Your task to perform on an android device: Open Google Maps and go to "Timeline" Image 0: 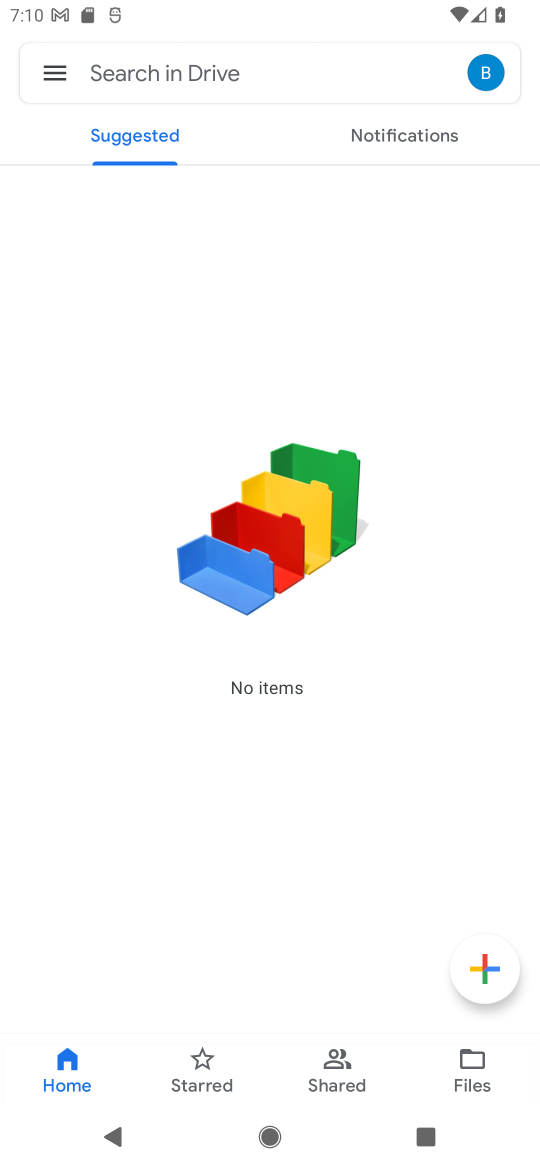
Step 0: press home button
Your task to perform on an android device: Open Google Maps and go to "Timeline" Image 1: 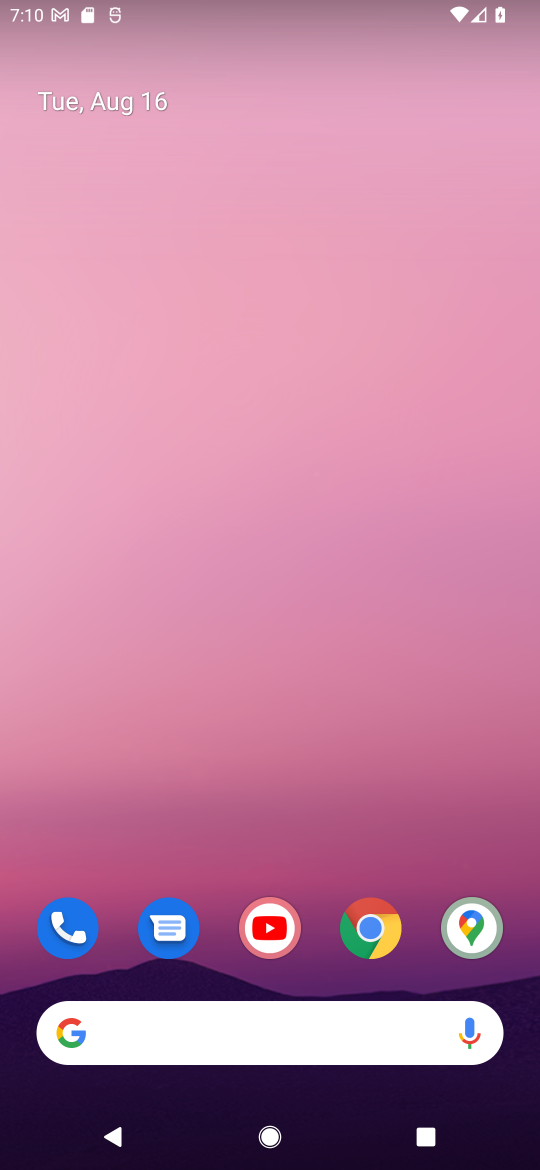
Step 1: drag from (305, 824) to (274, 328)
Your task to perform on an android device: Open Google Maps and go to "Timeline" Image 2: 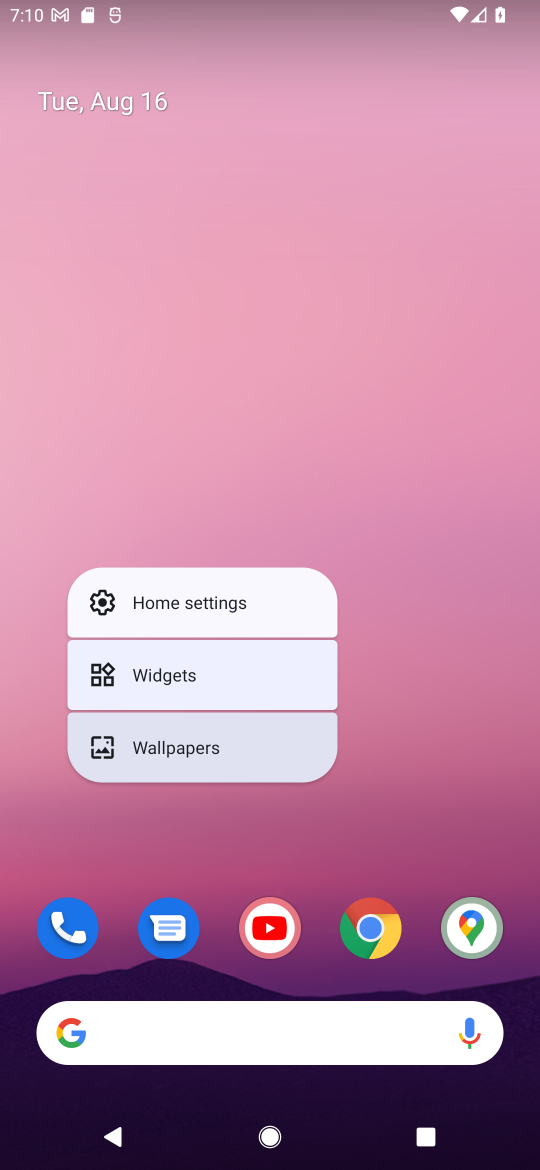
Step 2: drag from (353, 1035) to (294, 94)
Your task to perform on an android device: Open Google Maps and go to "Timeline" Image 3: 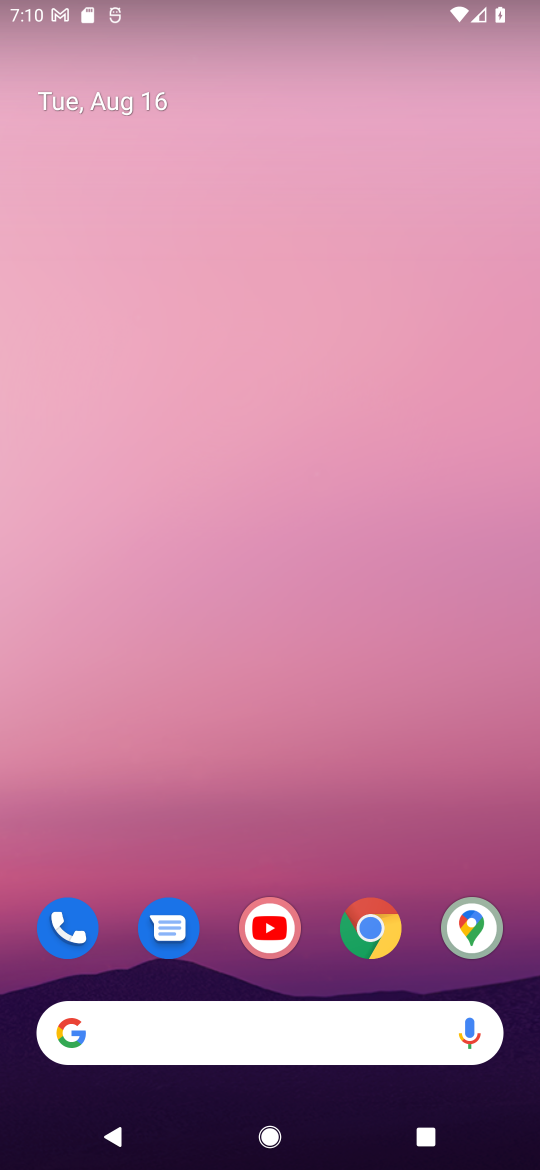
Step 3: drag from (232, 990) to (209, 258)
Your task to perform on an android device: Open Google Maps and go to "Timeline" Image 4: 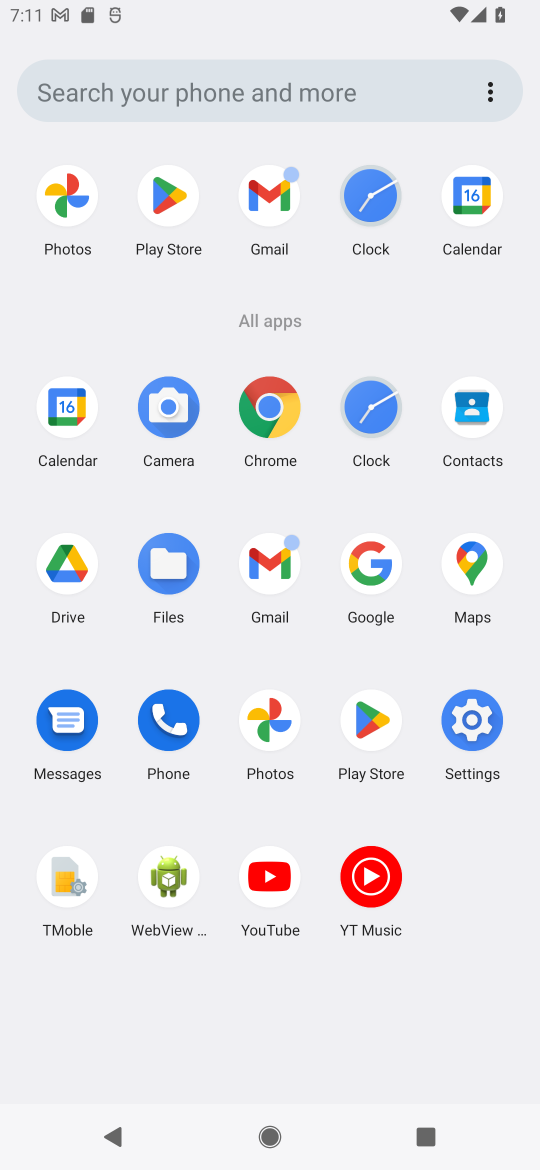
Step 4: click (475, 584)
Your task to perform on an android device: Open Google Maps and go to "Timeline" Image 5: 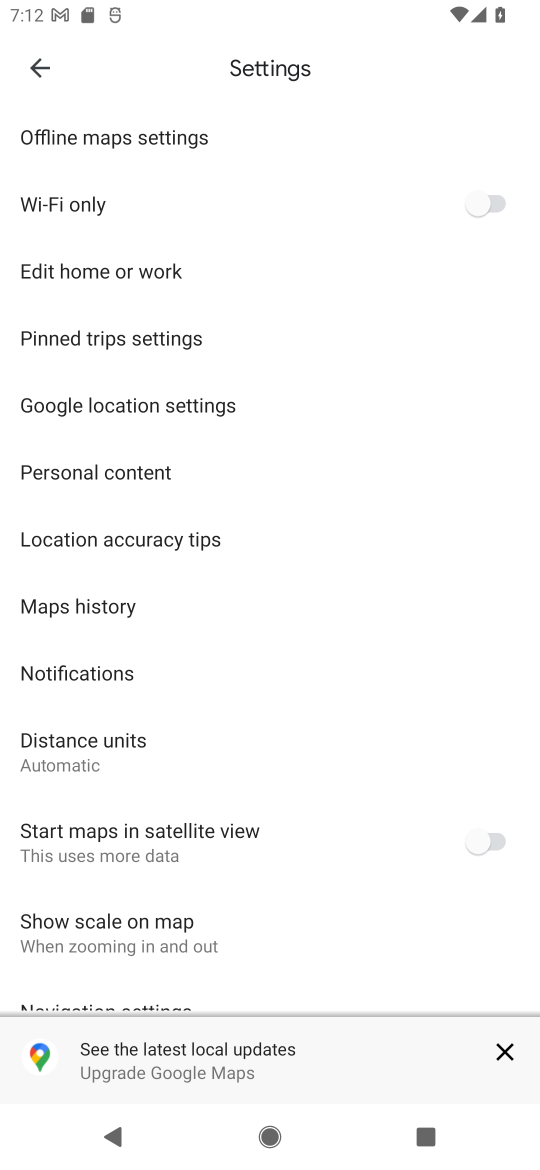
Step 5: task complete